Your task to perform on an android device: When is my next meeting? Image 0: 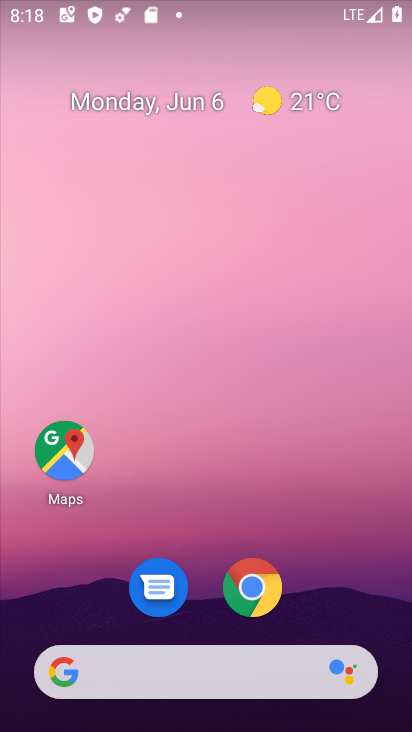
Step 0: drag from (260, 499) to (294, 2)
Your task to perform on an android device: When is my next meeting? Image 1: 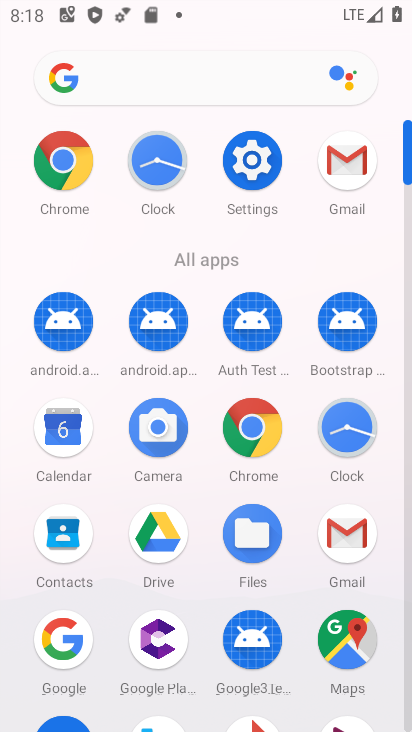
Step 1: click (59, 427)
Your task to perform on an android device: When is my next meeting? Image 2: 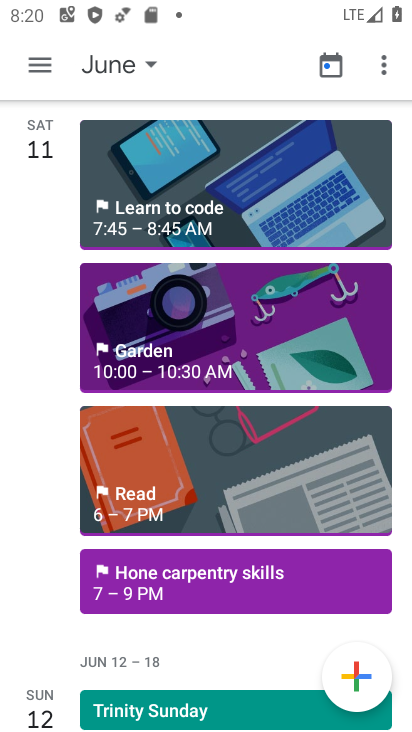
Step 2: drag from (295, 264) to (183, 728)
Your task to perform on an android device: When is my next meeting? Image 3: 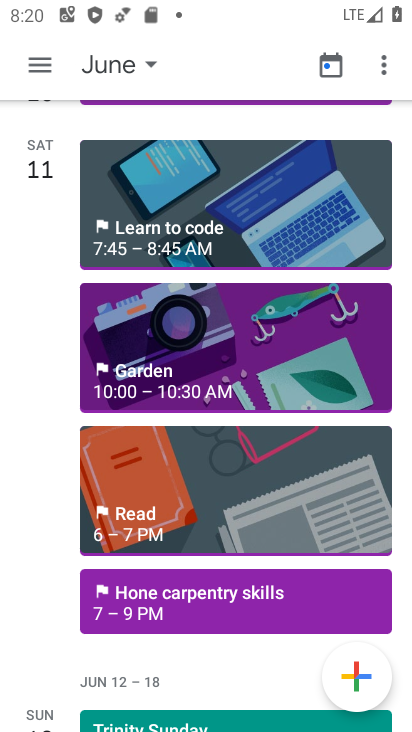
Step 3: click (41, 67)
Your task to perform on an android device: When is my next meeting? Image 4: 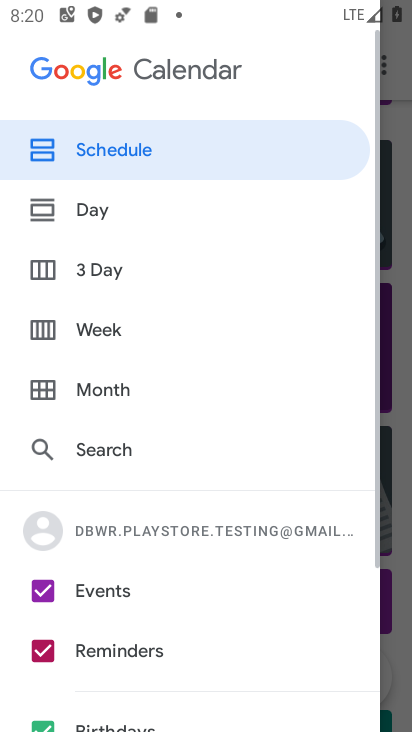
Step 4: click (130, 156)
Your task to perform on an android device: When is my next meeting? Image 5: 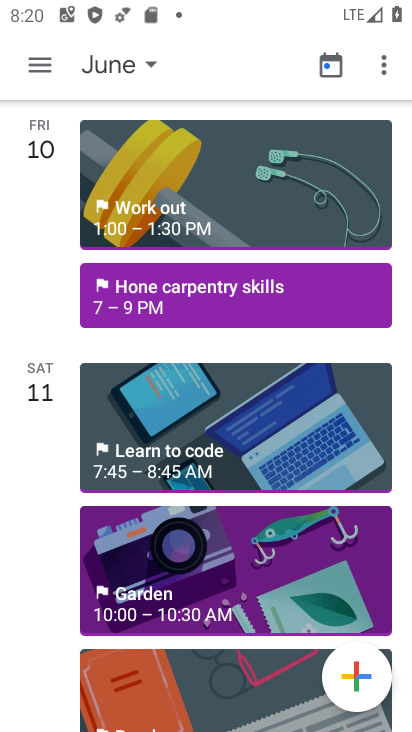
Step 5: task complete